Your task to perform on an android device: Clear all items from cart on newegg. Add "razer deathadder" to the cart on newegg Image 0: 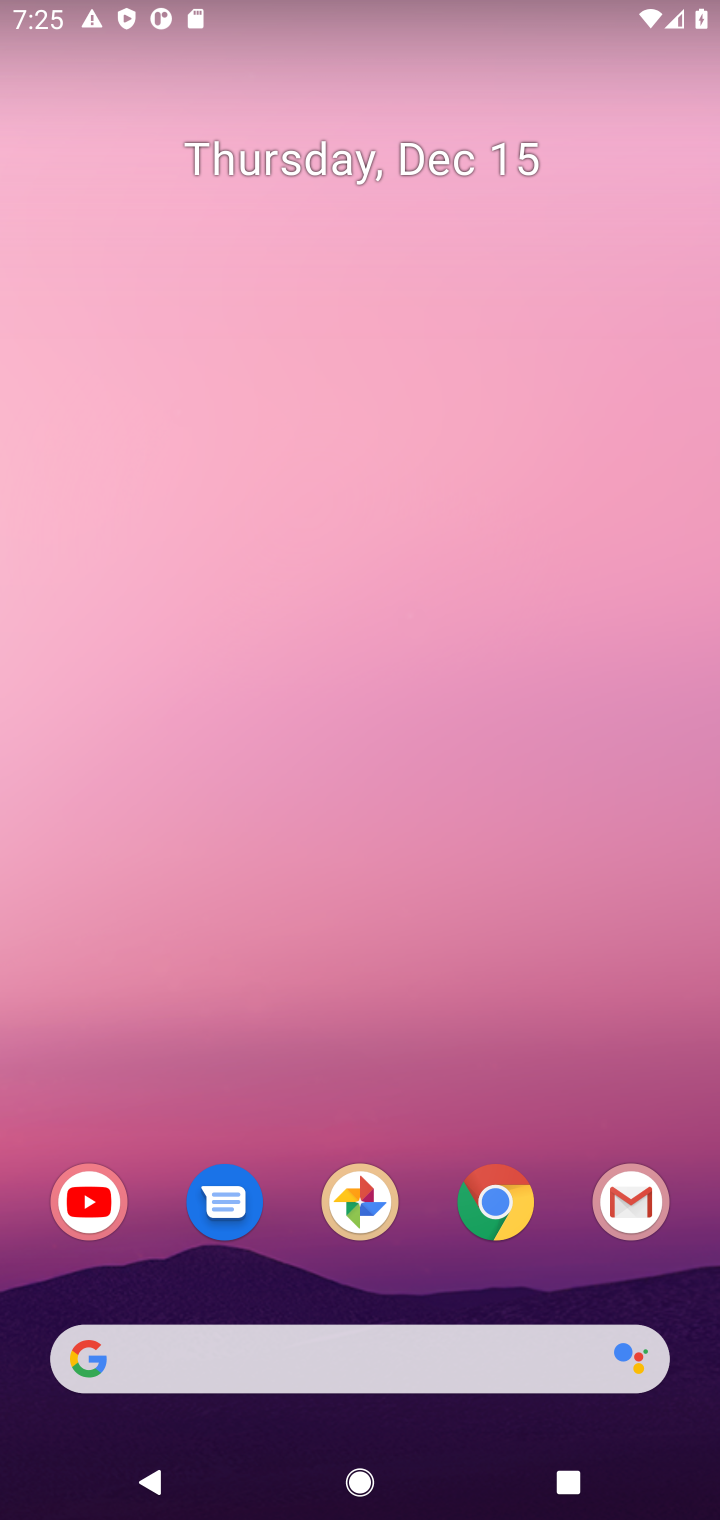
Step 0: click (507, 1201)
Your task to perform on an android device: Clear all items from cart on newegg. Add "razer deathadder" to the cart on newegg Image 1: 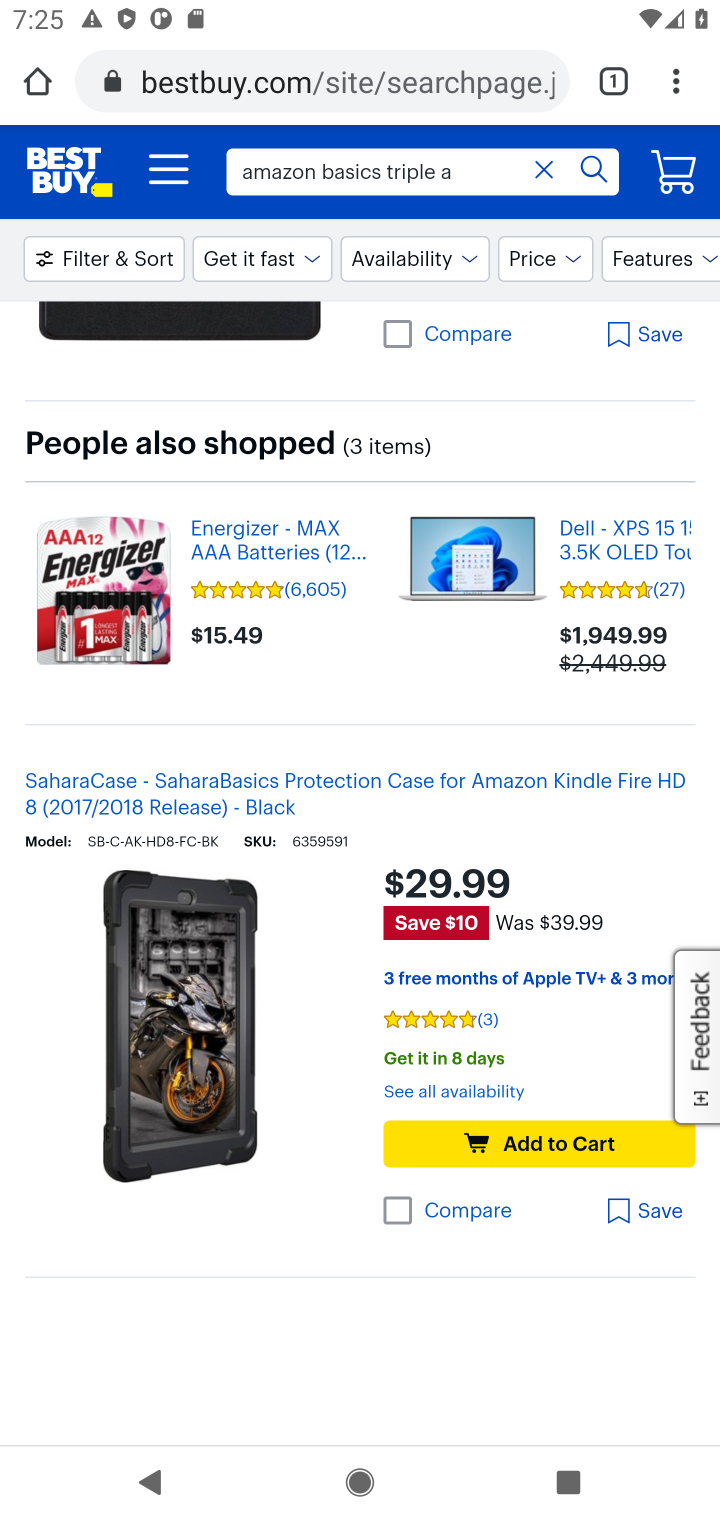
Step 1: click (289, 102)
Your task to perform on an android device: Clear all items from cart on newegg. Add "razer deathadder" to the cart on newegg Image 2: 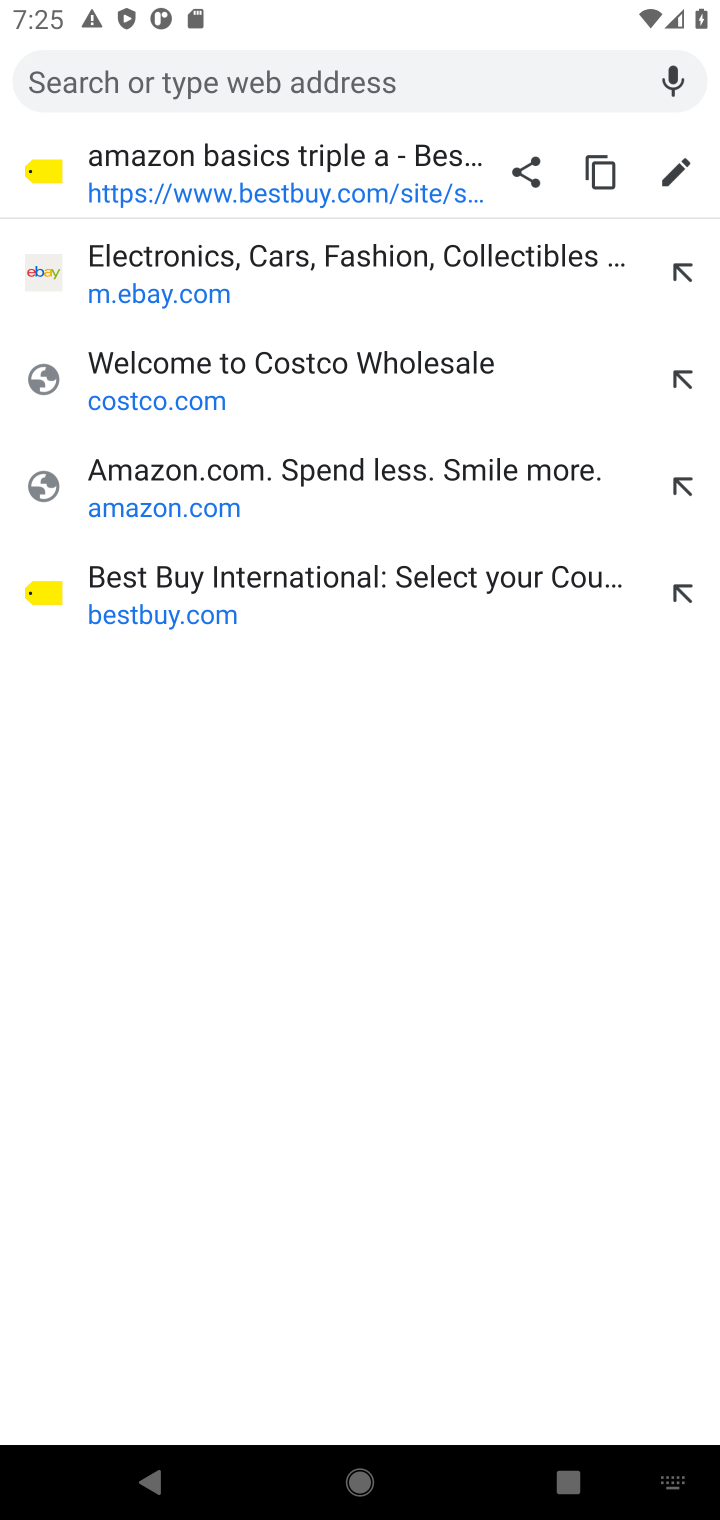
Step 2: type "newegg.com"
Your task to perform on an android device: Clear all items from cart on newegg. Add "razer deathadder" to the cart on newegg Image 3: 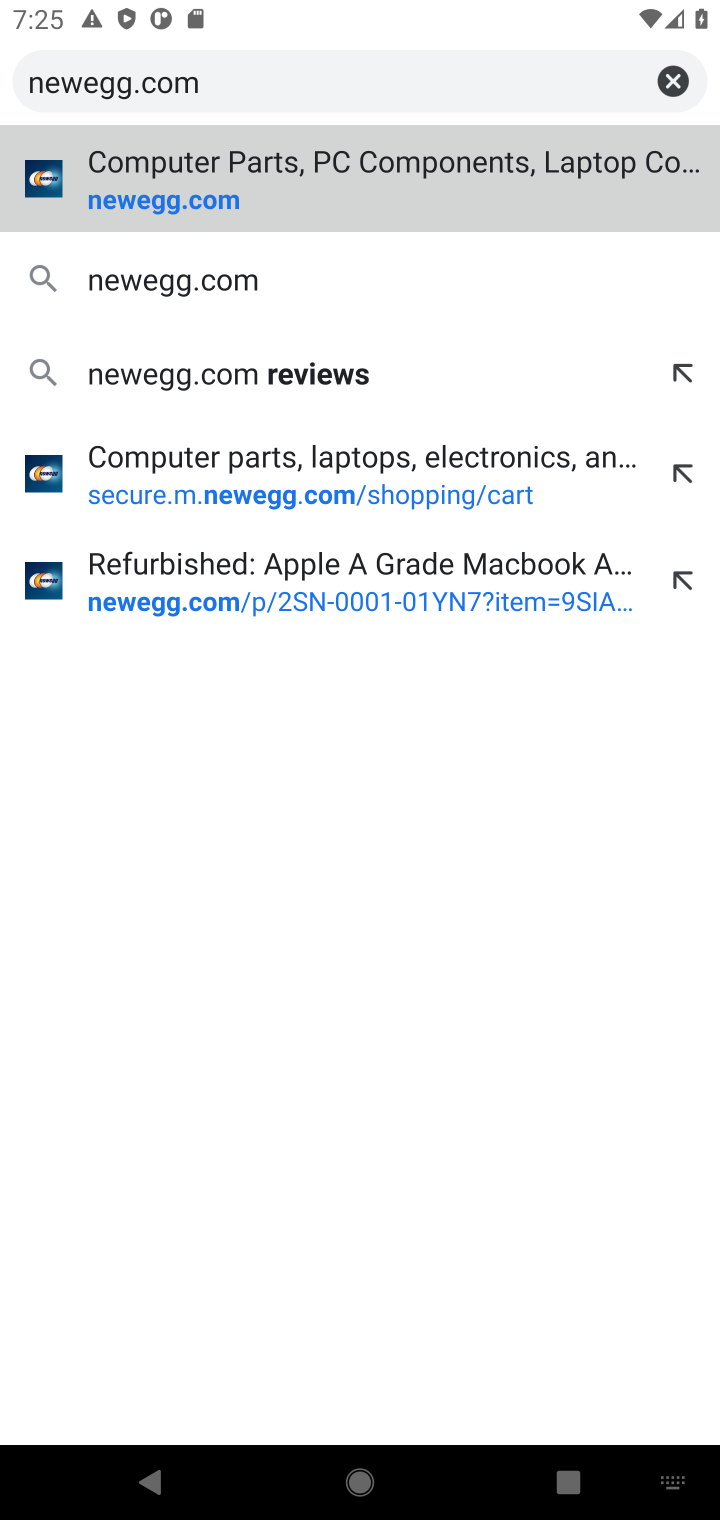
Step 3: click (165, 211)
Your task to perform on an android device: Clear all items from cart on newegg. Add "razer deathadder" to the cart on newegg Image 4: 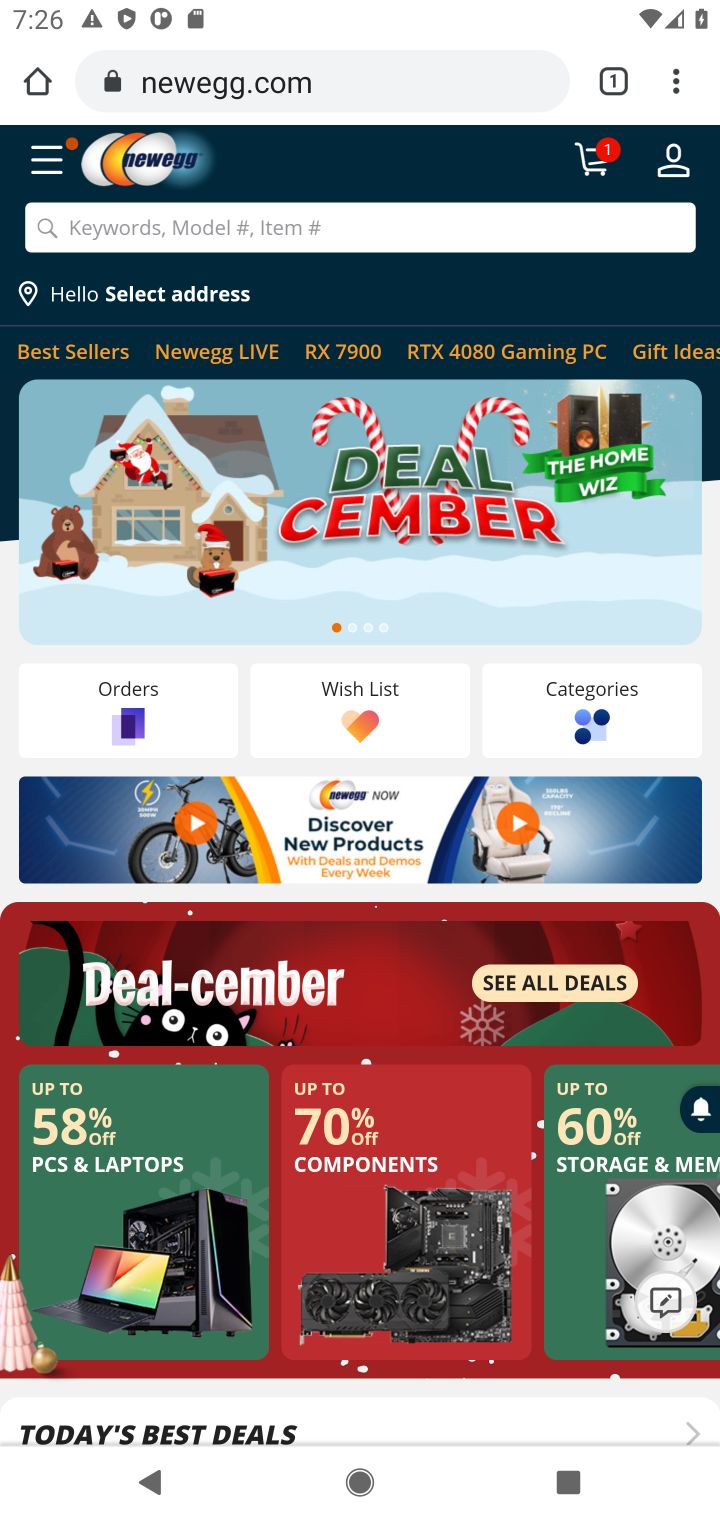
Step 4: click (601, 185)
Your task to perform on an android device: Clear all items from cart on newegg. Add "razer deathadder" to the cart on newegg Image 5: 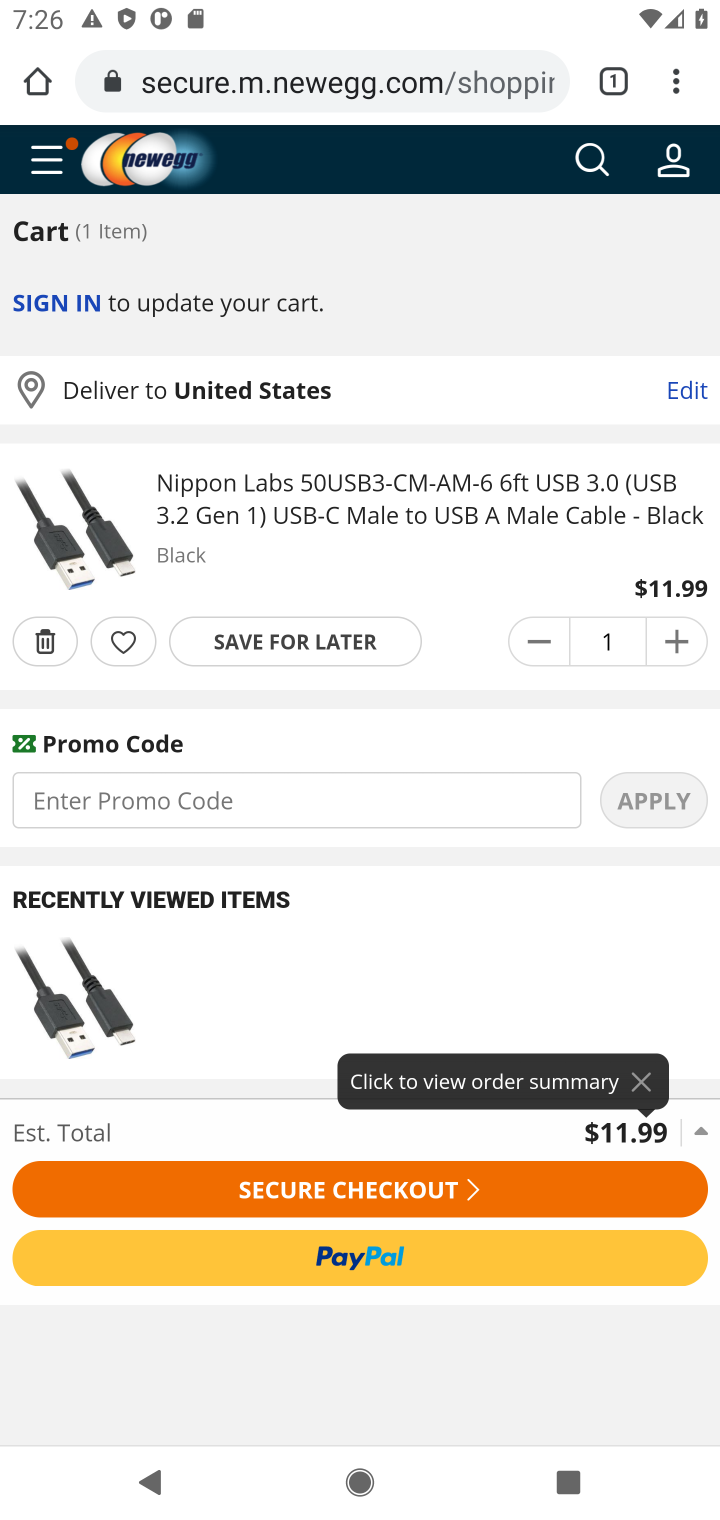
Step 5: click (40, 646)
Your task to perform on an android device: Clear all items from cart on newegg. Add "razer deathadder" to the cart on newegg Image 6: 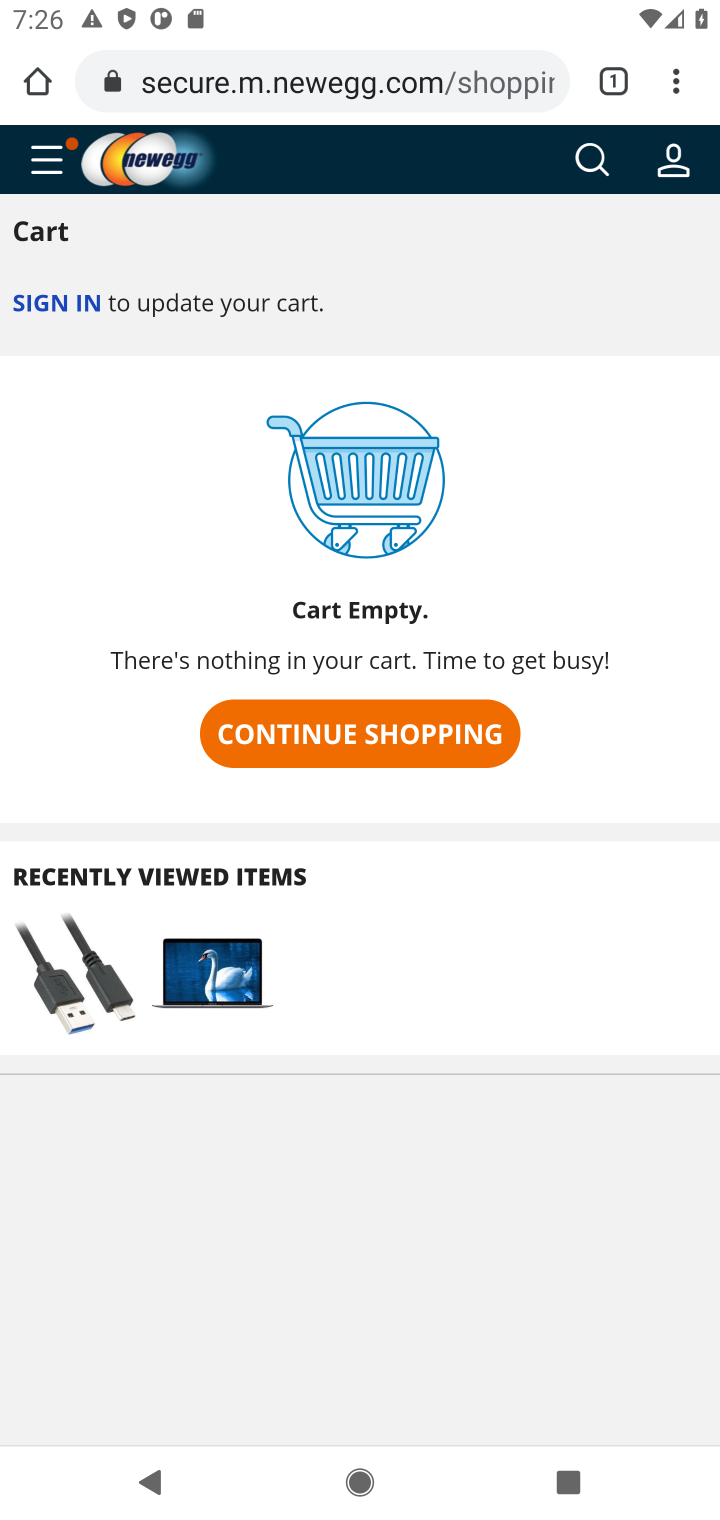
Step 6: click (581, 162)
Your task to perform on an android device: Clear all items from cart on newegg. Add "razer deathadder" to the cart on newegg Image 7: 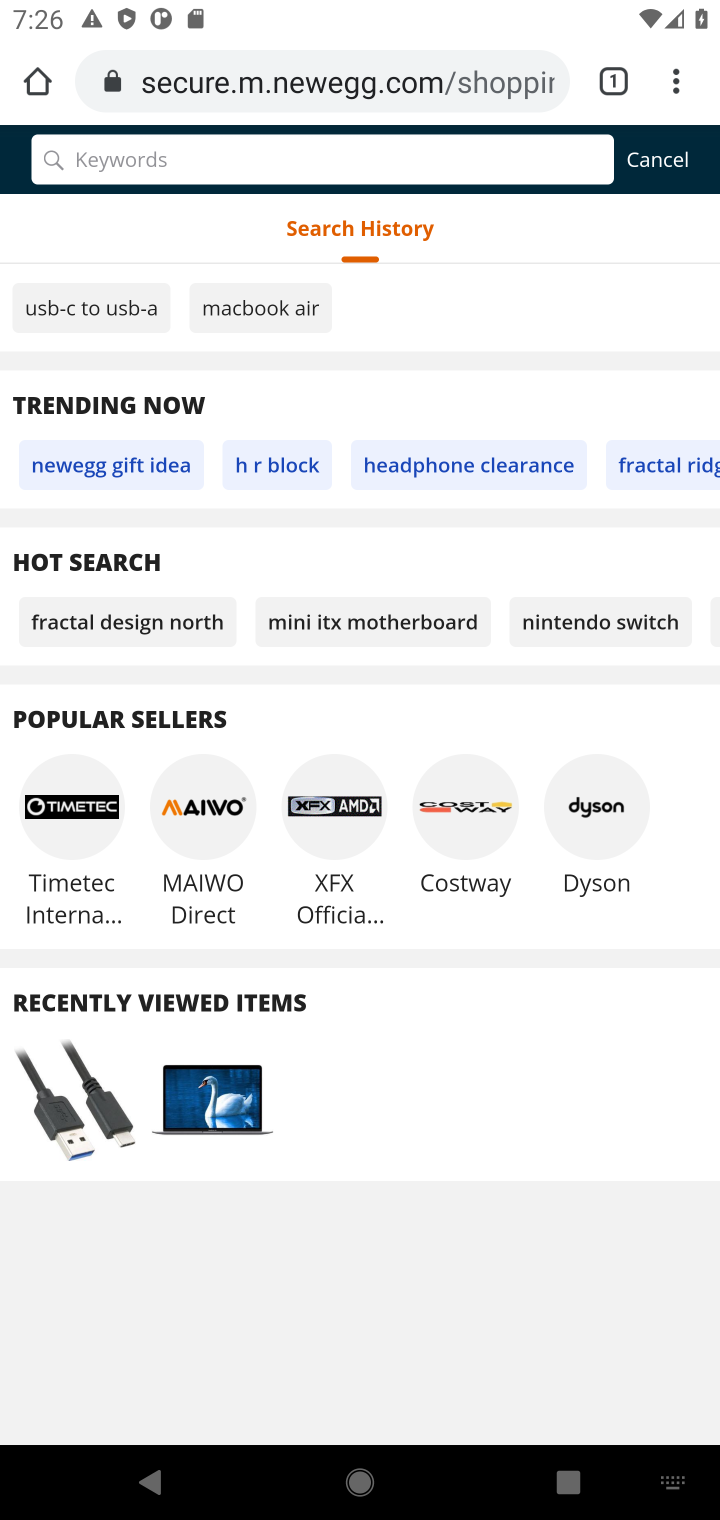
Step 7: type "razer deathadder"
Your task to perform on an android device: Clear all items from cart on newegg. Add "razer deathadder" to the cart on newegg Image 8: 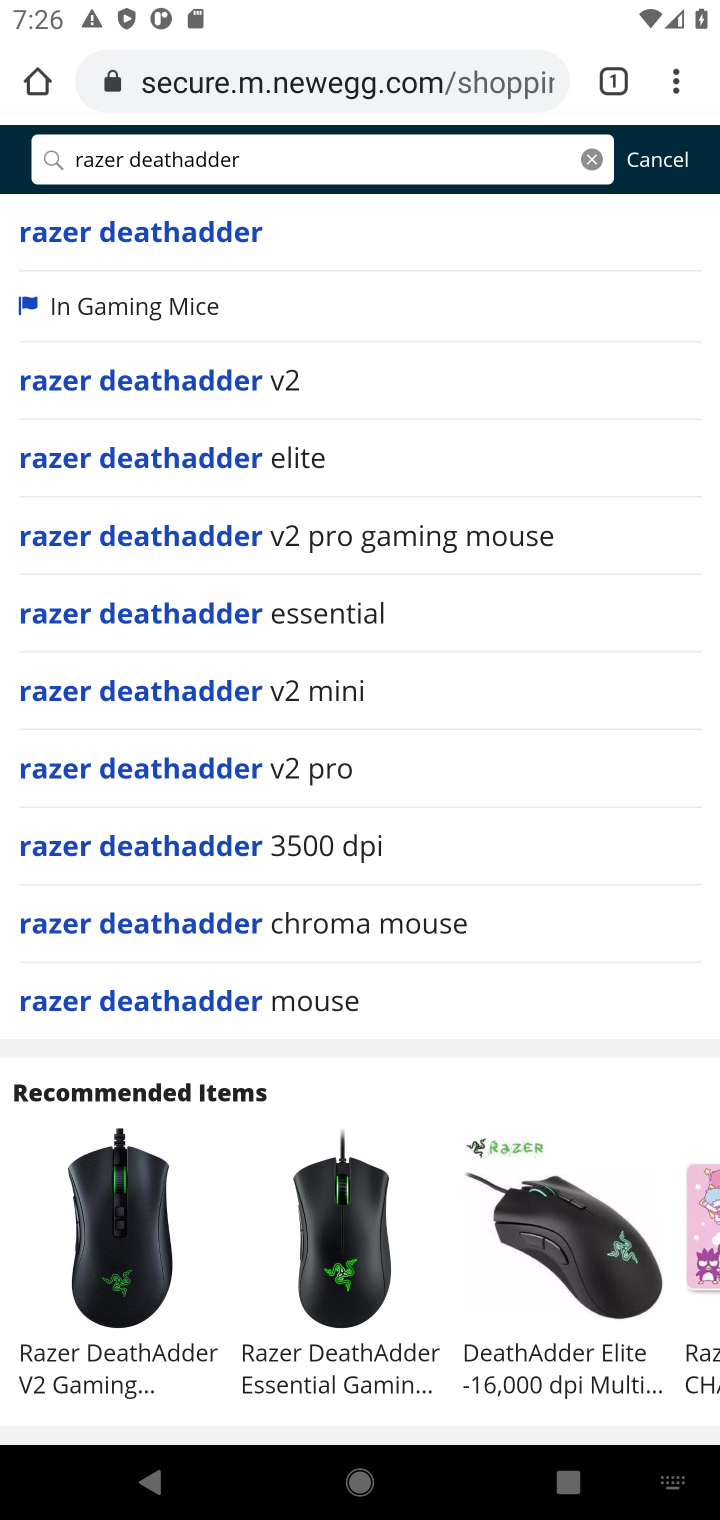
Step 8: click (55, 240)
Your task to perform on an android device: Clear all items from cart on newegg. Add "razer deathadder" to the cart on newegg Image 9: 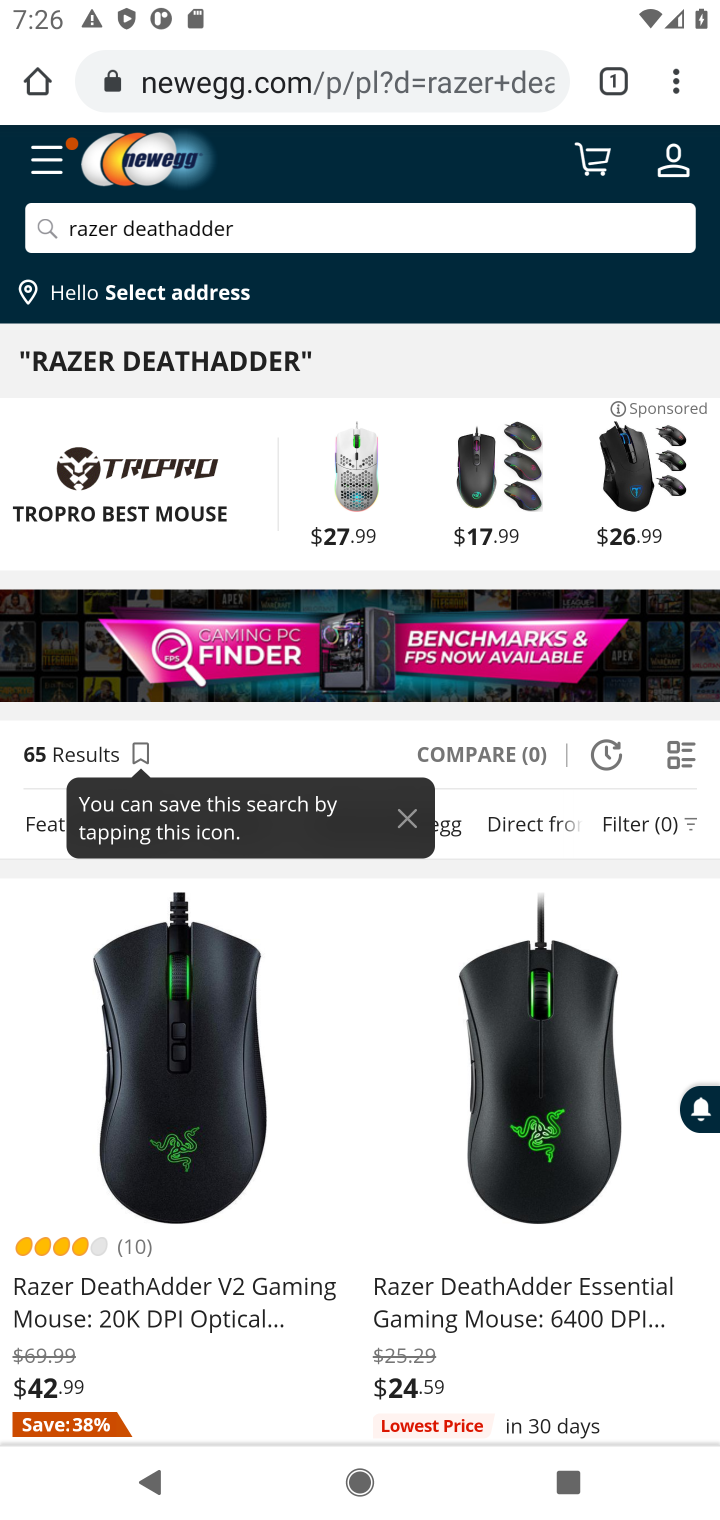
Step 9: click (128, 1318)
Your task to perform on an android device: Clear all items from cart on newegg. Add "razer deathadder" to the cart on newegg Image 10: 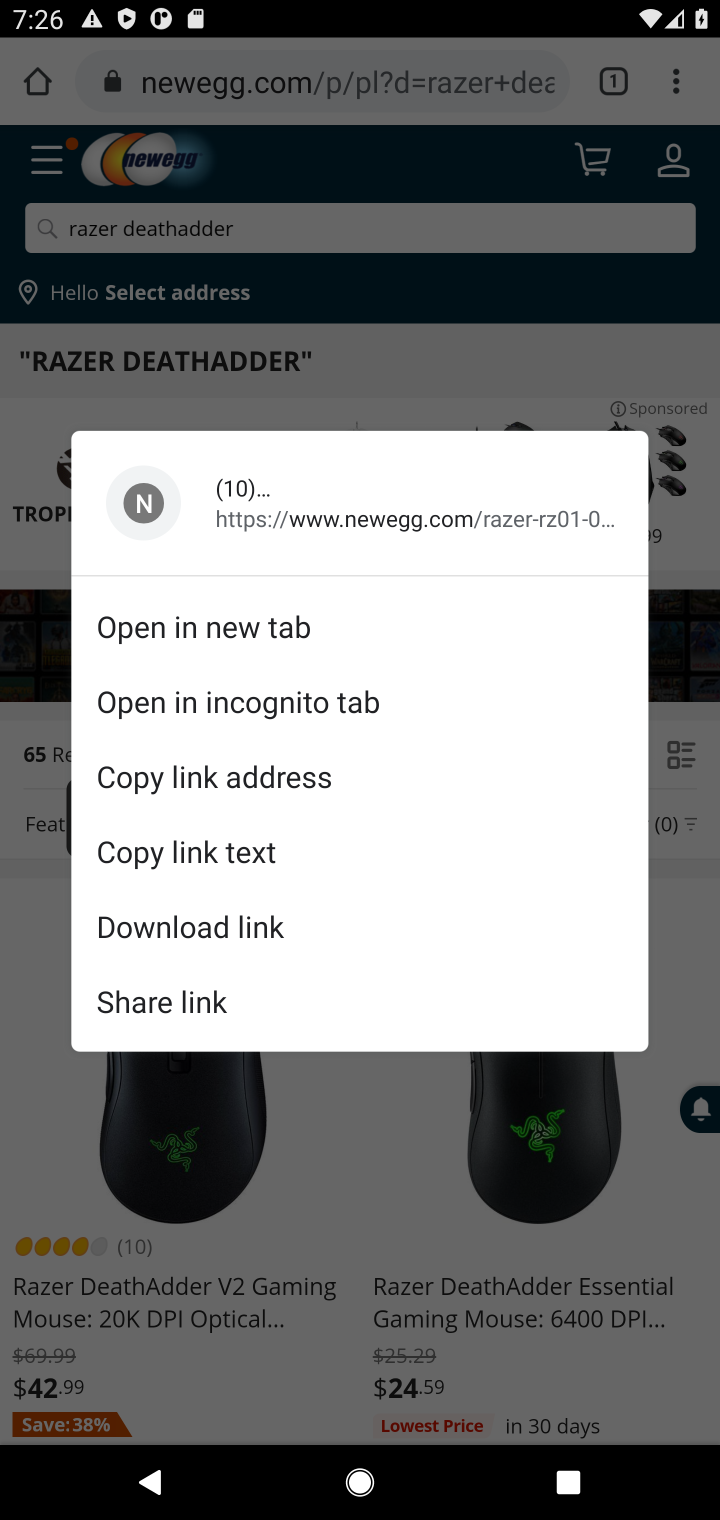
Step 10: click (128, 1318)
Your task to perform on an android device: Clear all items from cart on newegg. Add "razer deathadder" to the cart on newegg Image 11: 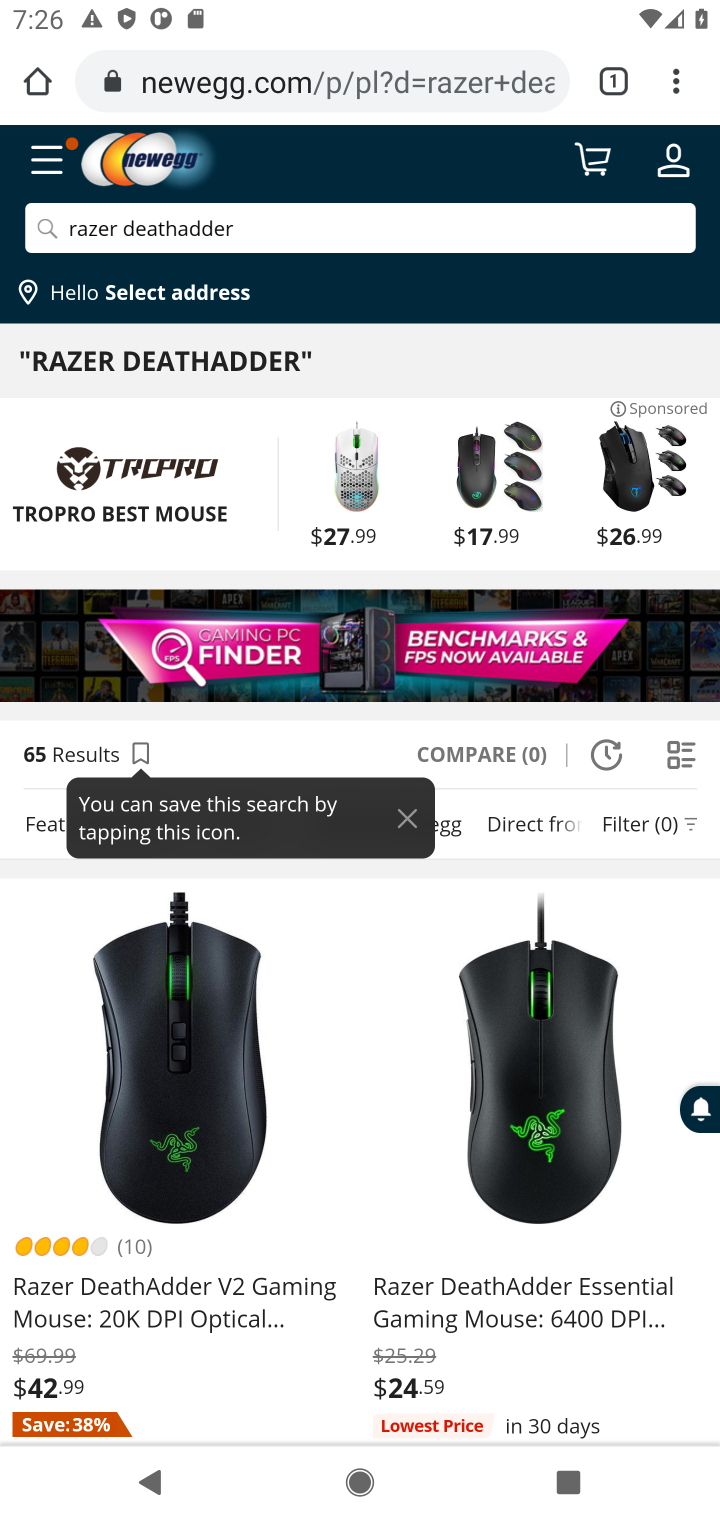
Step 11: drag from (141, 1249) to (187, 849)
Your task to perform on an android device: Clear all items from cart on newegg. Add "razer deathadder" to the cart on newegg Image 12: 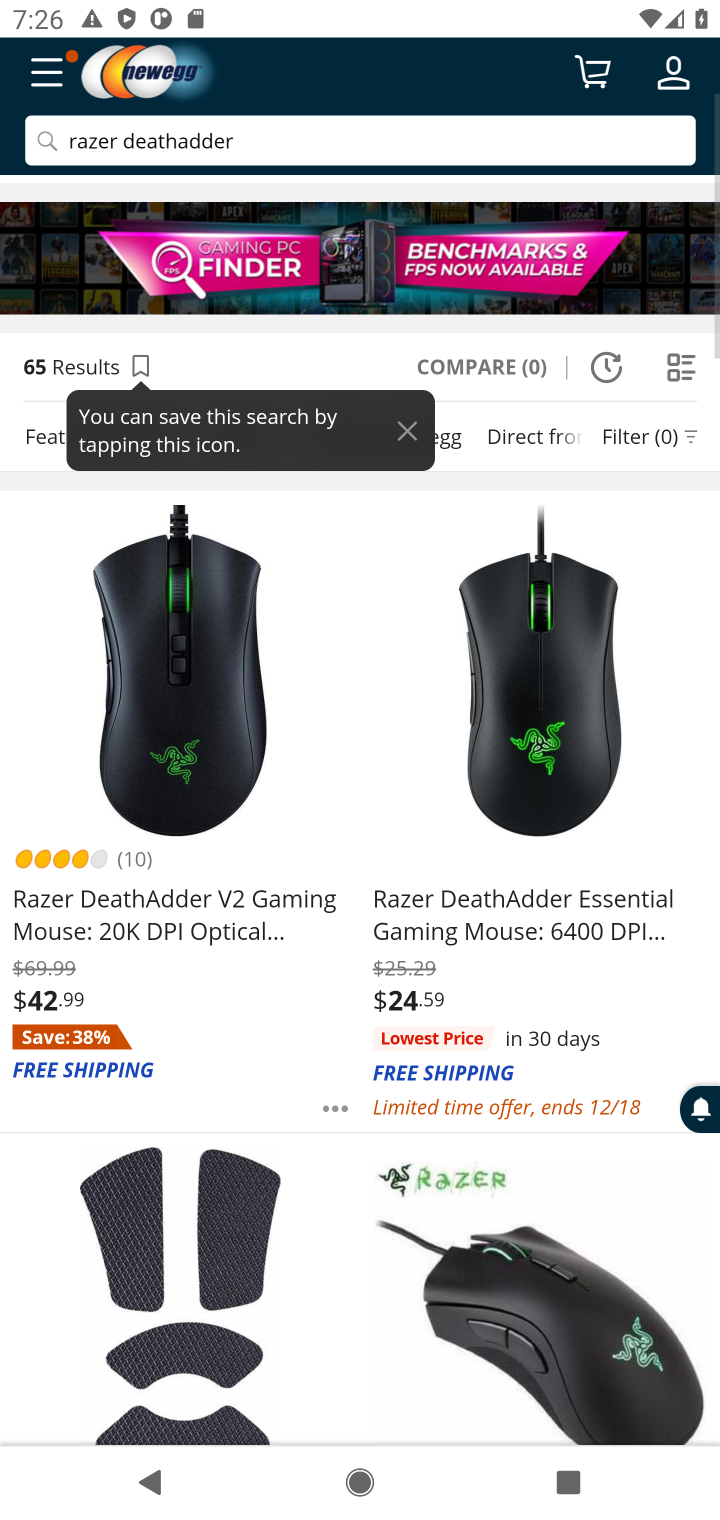
Step 12: click (108, 906)
Your task to perform on an android device: Clear all items from cart on newegg. Add "razer deathadder" to the cart on newegg Image 13: 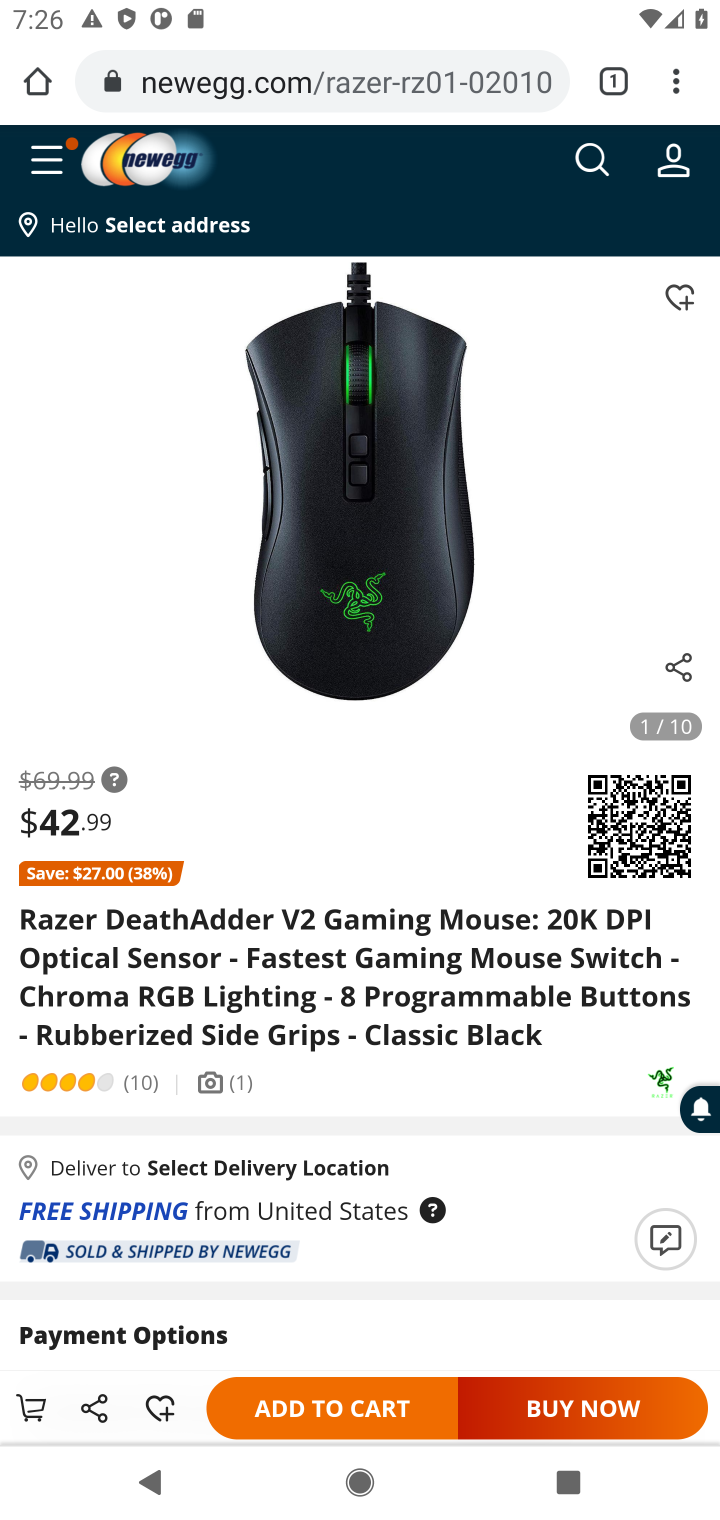
Step 13: click (332, 1417)
Your task to perform on an android device: Clear all items from cart on newegg. Add "razer deathadder" to the cart on newegg Image 14: 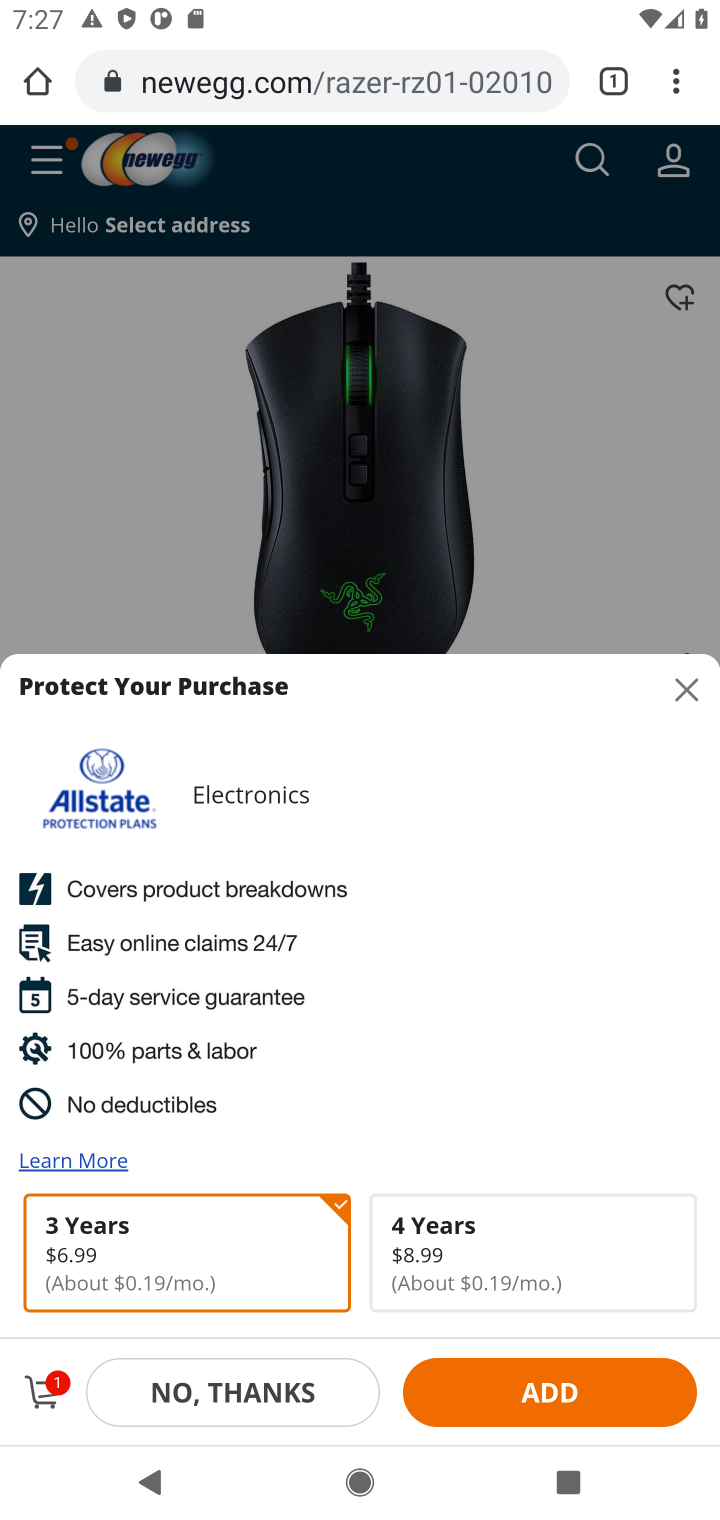
Step 14: task complete